Your task to perform on an android device: open app "Venmo" (install if not already installed), go to login, and select forgot password Image 0: 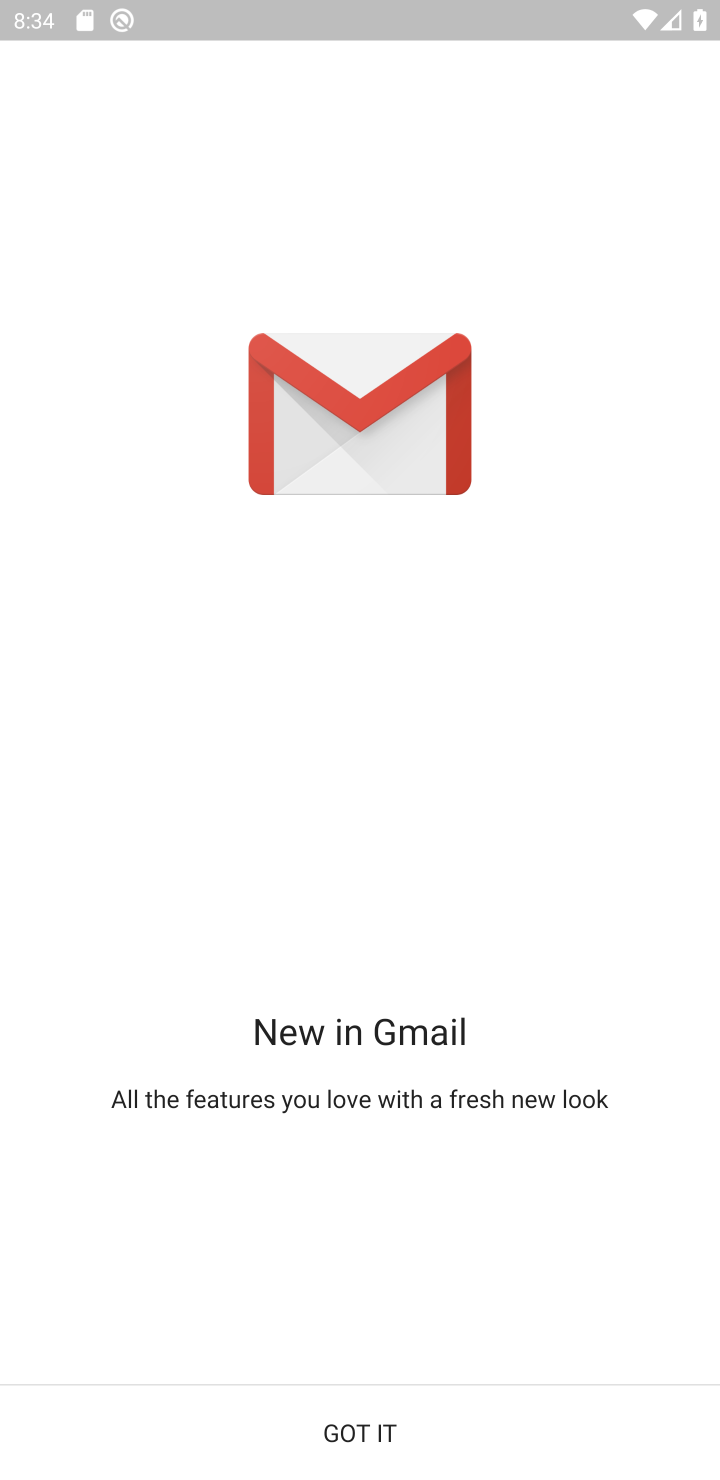
Step 0: press home button
Your task to perform on an android device: open app "Venmo" (install if not already installed), go to login, and select forgot password Image 1: 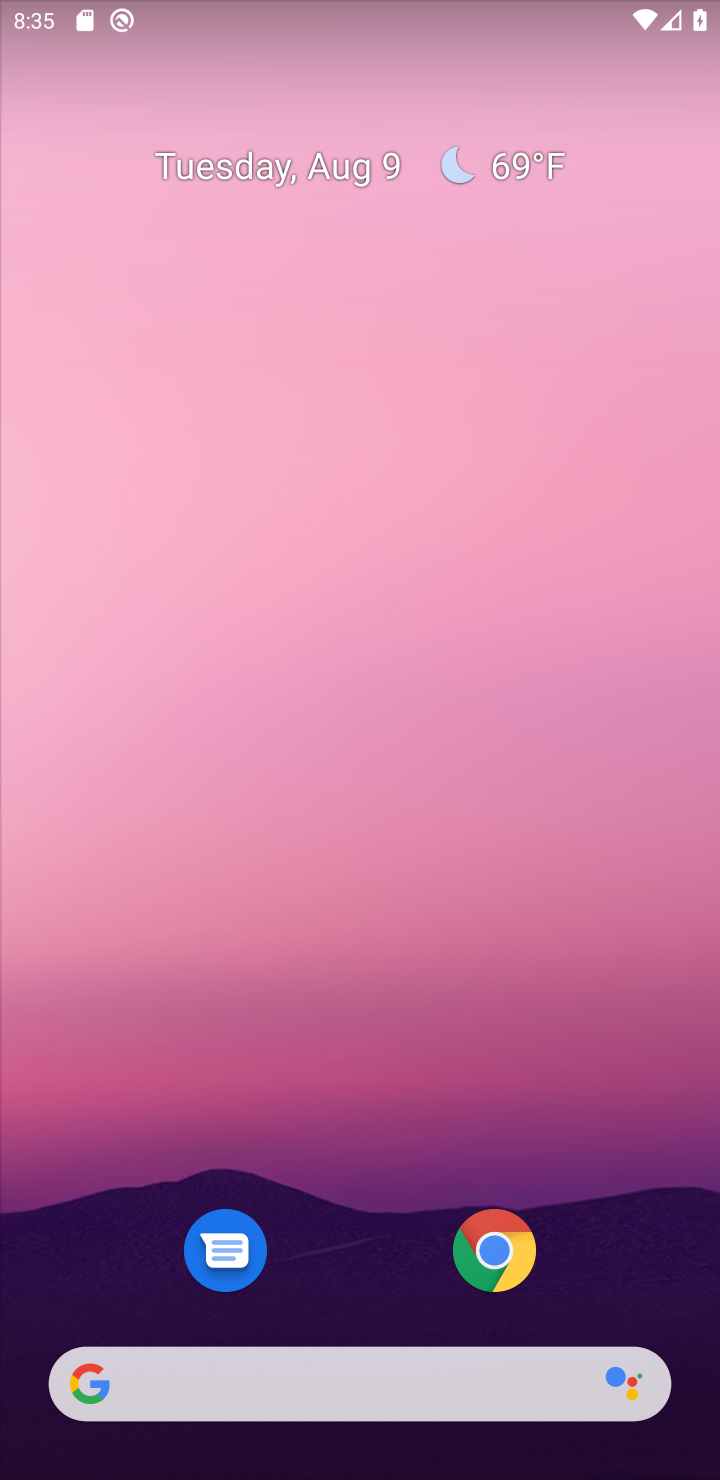
Step 1: click (490, 1260)
Your task to perform on an android device: open app "Venmo" (install if not already installed), go to login, and select forgot password Image 2: 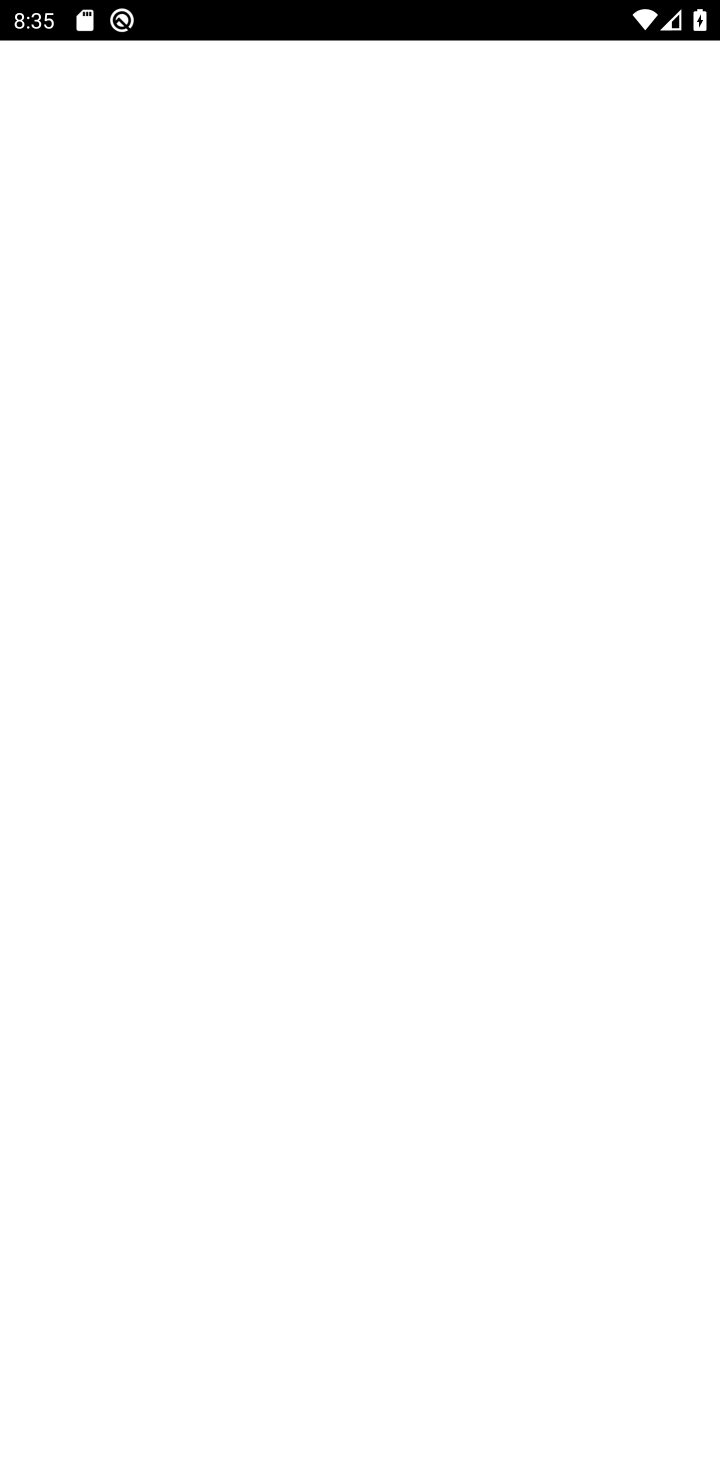
Step 2: click (490, 1240)
Your task to perform on an android device: open app "Venmo" (install if not already installed), go to login, and select forgot password Image 3: 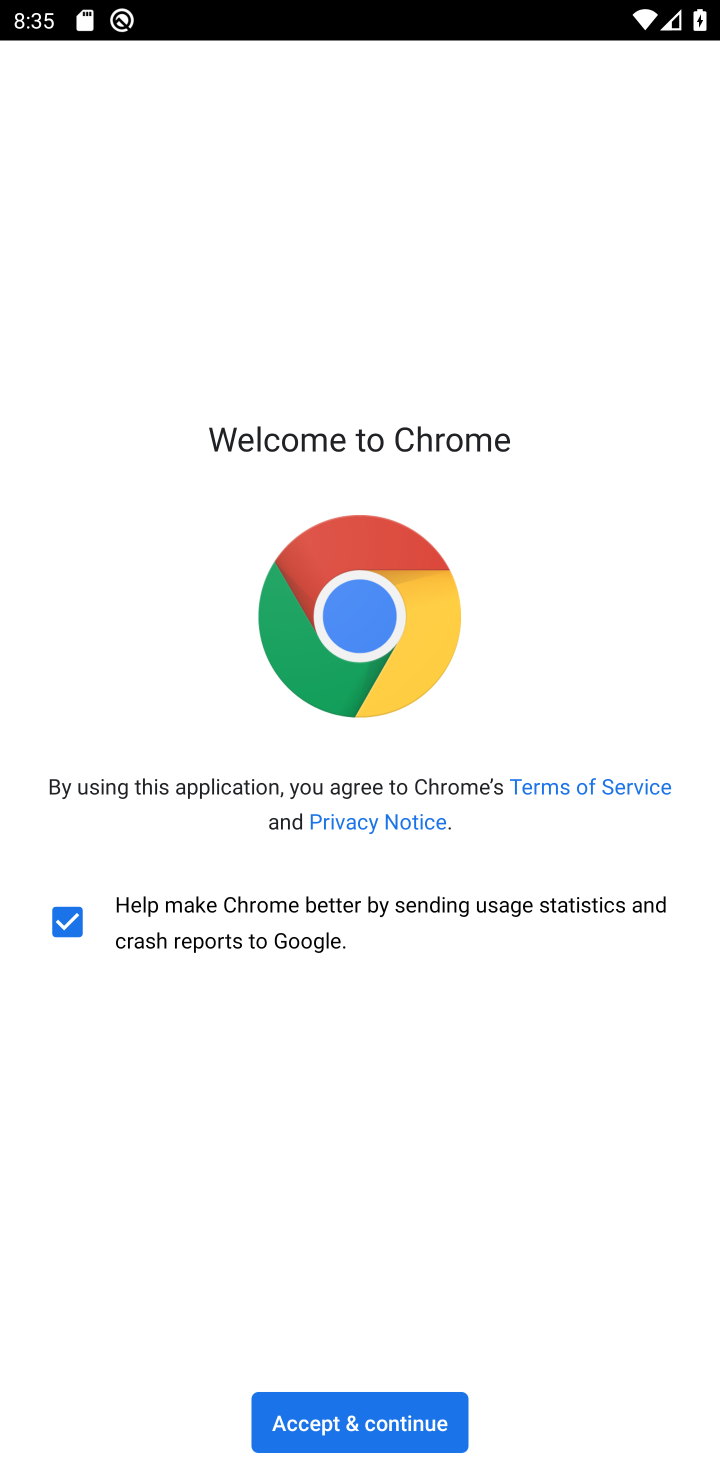
Step 3: press home button
Your task to perform on an android device: open app "Venmo" (install if not already installed), go to login, and select forgot password Image 4: 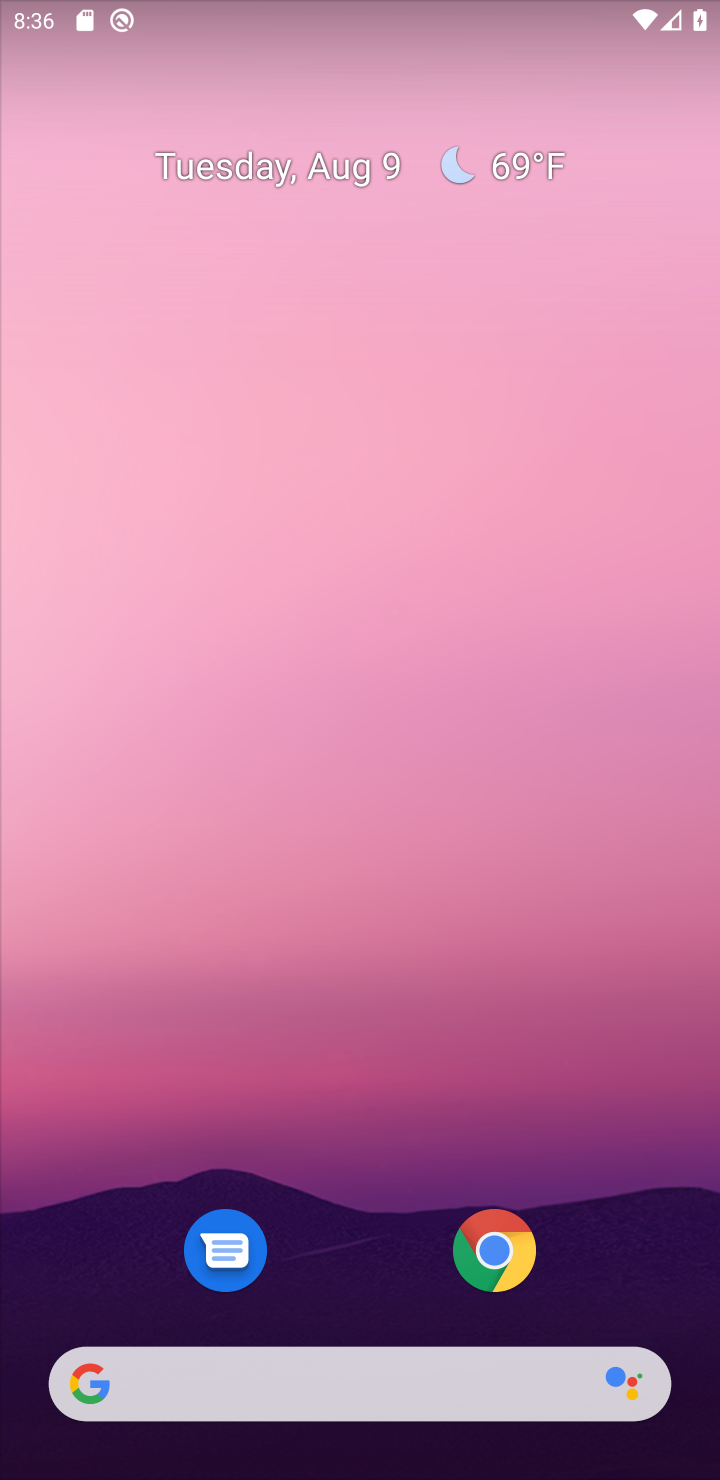
Step 4: drag from (688, 1334) to (615, 157)
Your task to perform on an android device: open app "Venmo" (install if not already installed), go to login, and select forgot password Image 5: 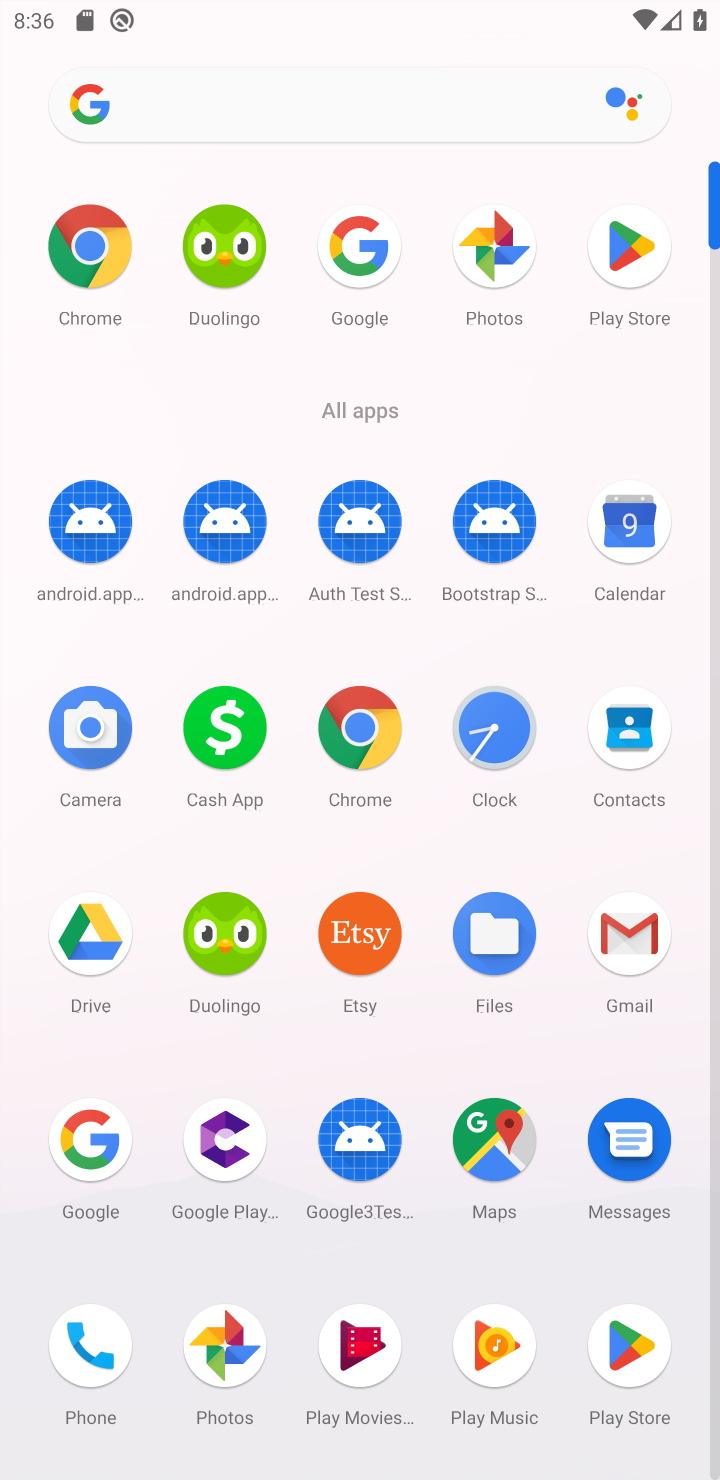
Step 5: click (605, 1334)
Your task to perform on an android device: open app "Venmo" (install if not already installed), go to login, and select forgot password Image 6: 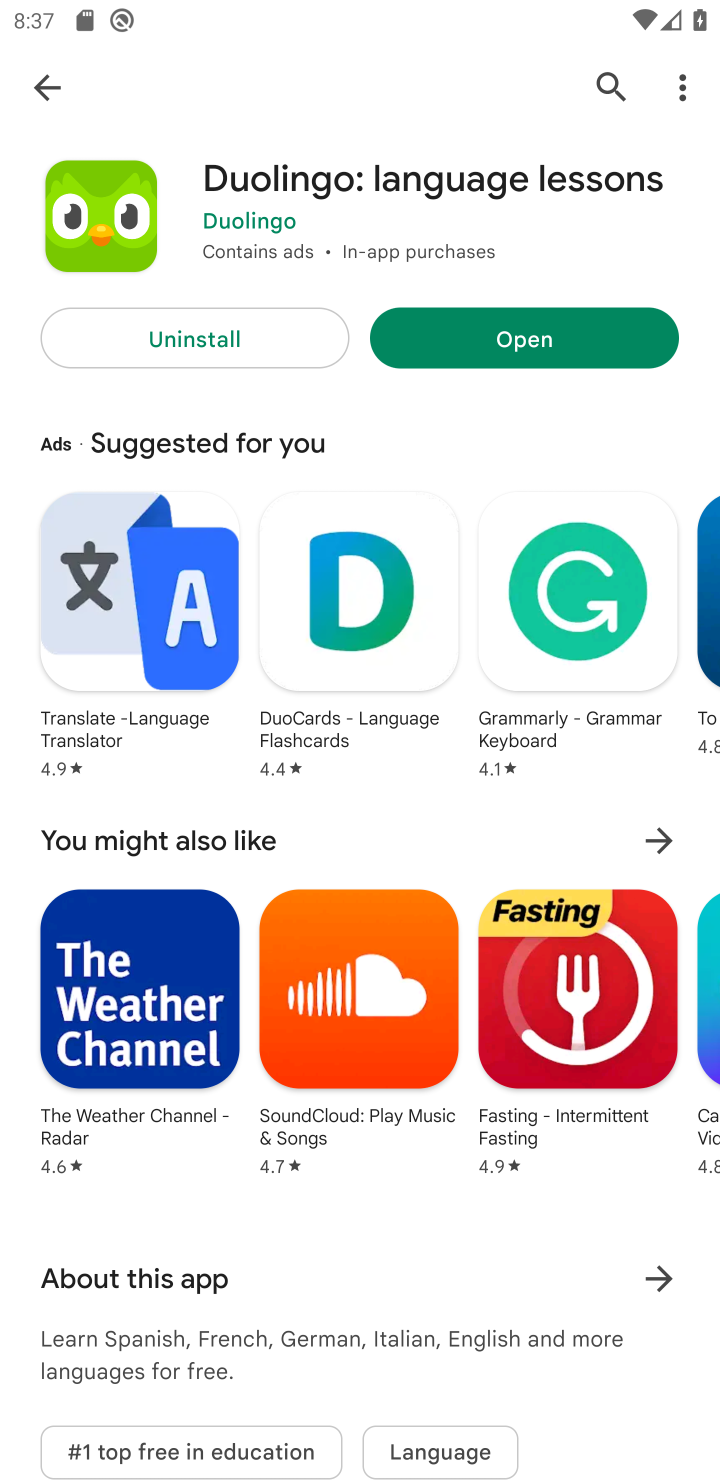
Step 6: click (611, 75)
Your task to perform on an android device: open app "Venmo" (install if not already installed), go to login, and select forgot password Image 7: 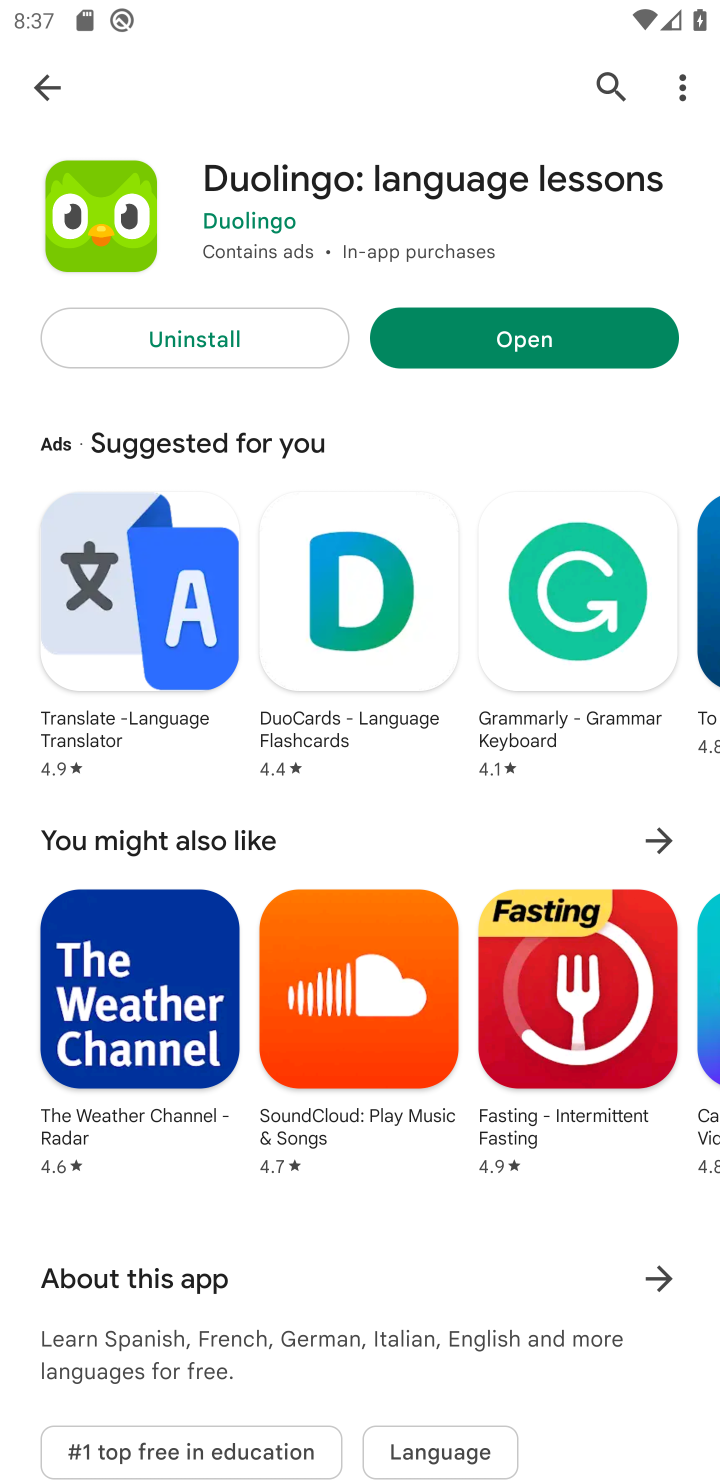
Step 7: click (598, 72)
Your task to perform on an android device: open app "Venmo" (install if not already installed), go to login, and select forgot password Image 8: 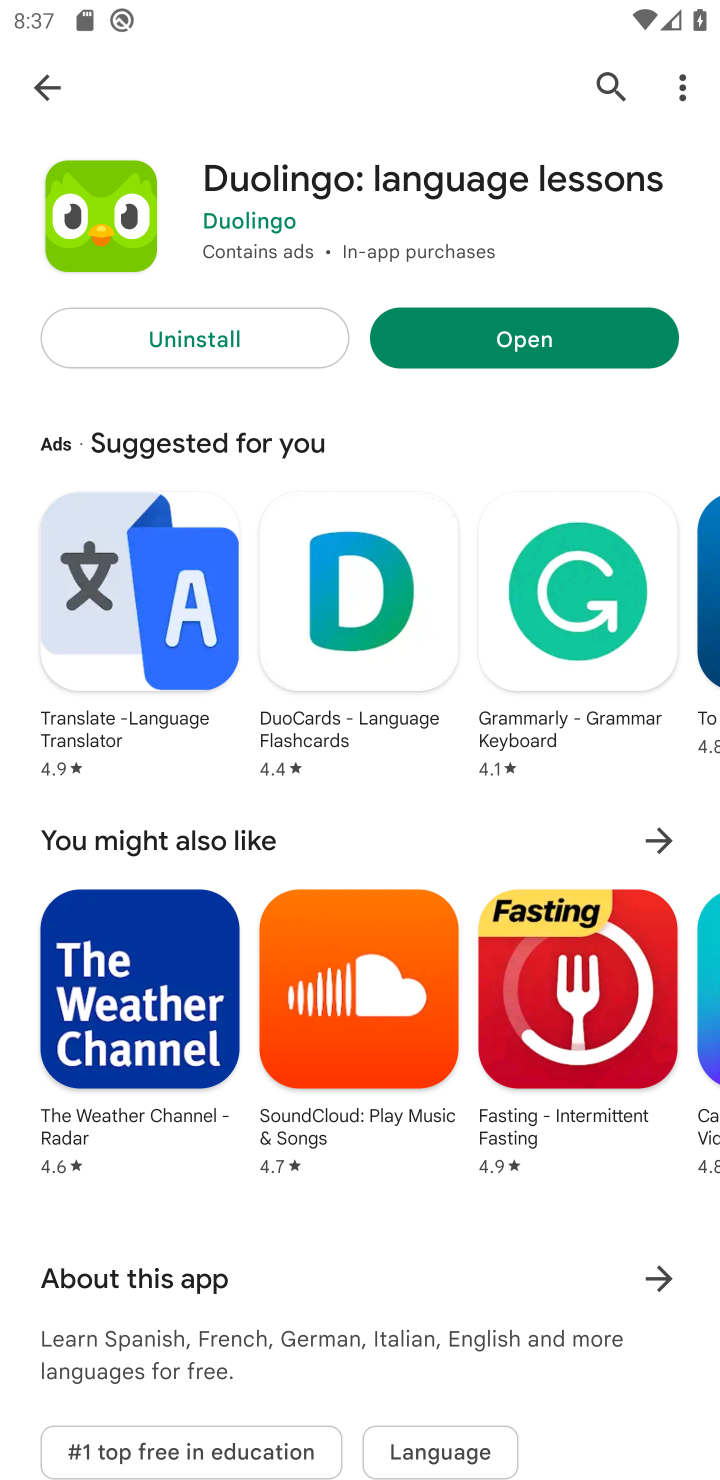
Step 8: click (609, 77)
Your task to perform on an android device: open app "Venmo" (install if not already installed), go to login, and select forgot password Image 9: 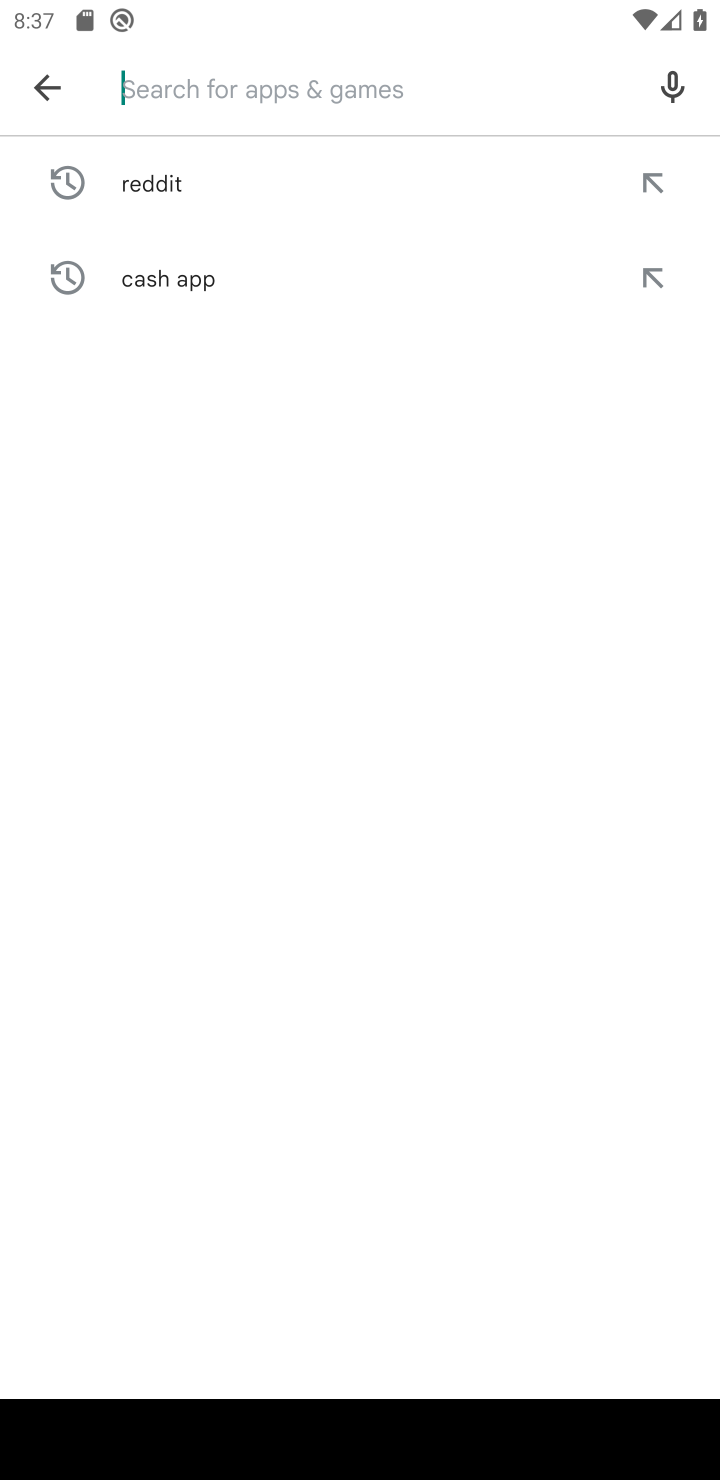
Step 9: type "Venmo"
Your task to perform on an android device: open app "Venmo" (install if not already installed), go to login, and select forgot password Image 10: 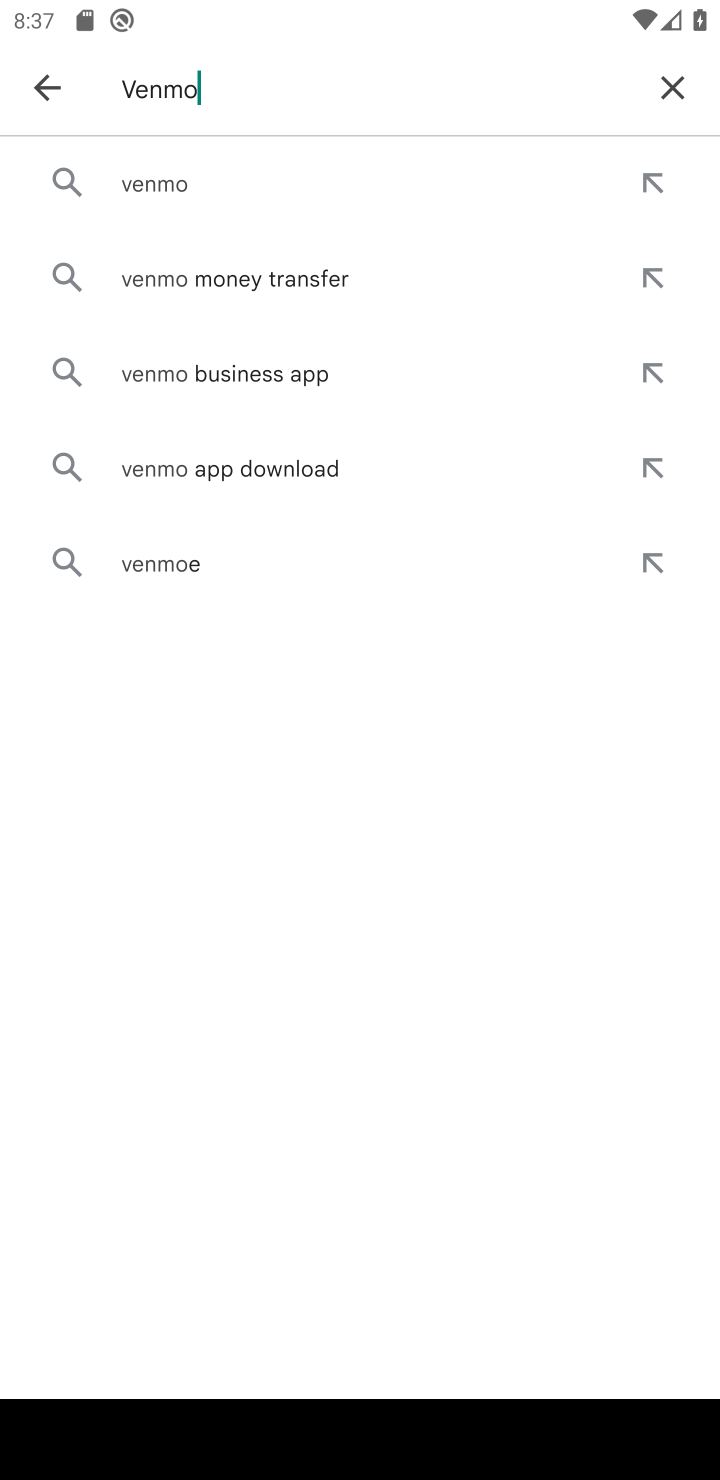
Step 10: click (168, 182)
Your task to perform on an android device: open app "Venmo" (install if not already installed), go to login, and select forgot password Image 11: 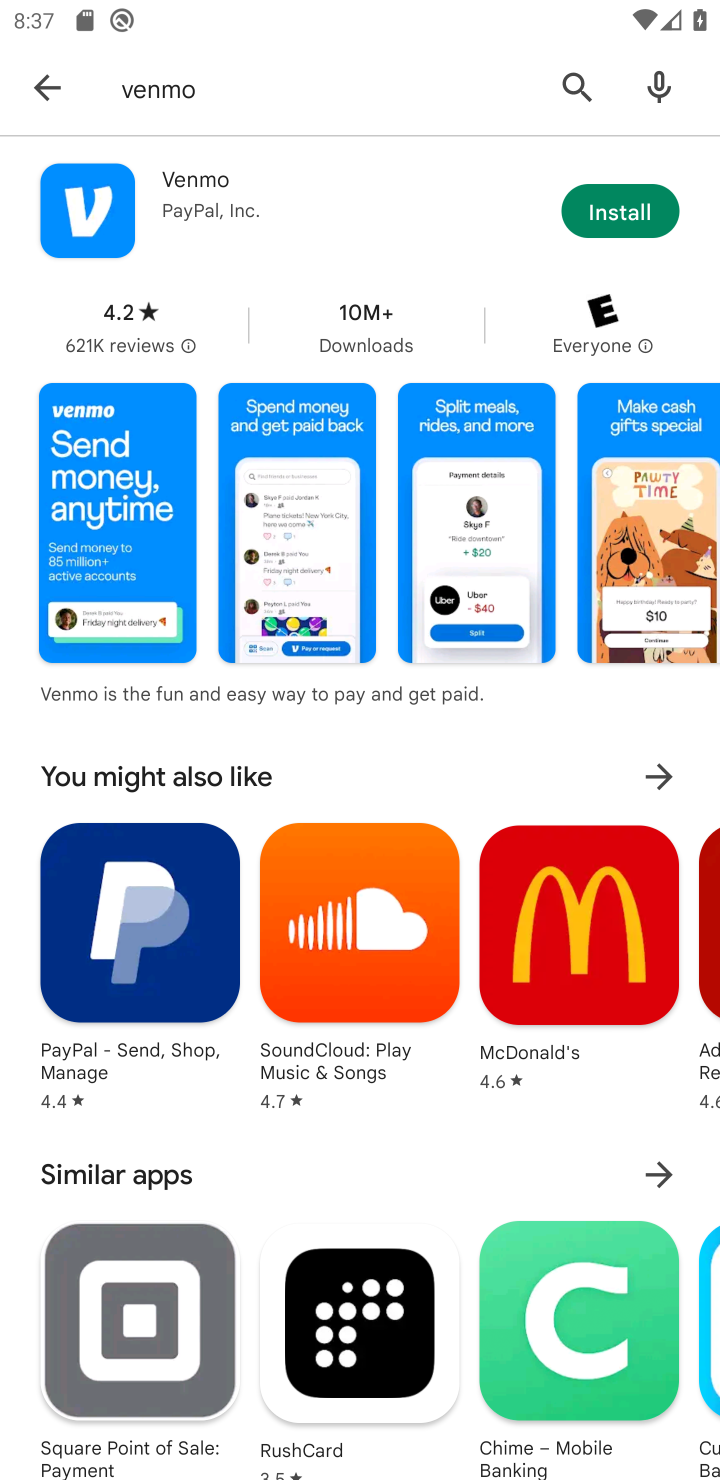
Step 11: click (618, 207)
Your task to perform on an android device: open app "Venmo" (install if not already installed), go to login, and select forgot password Image 12: 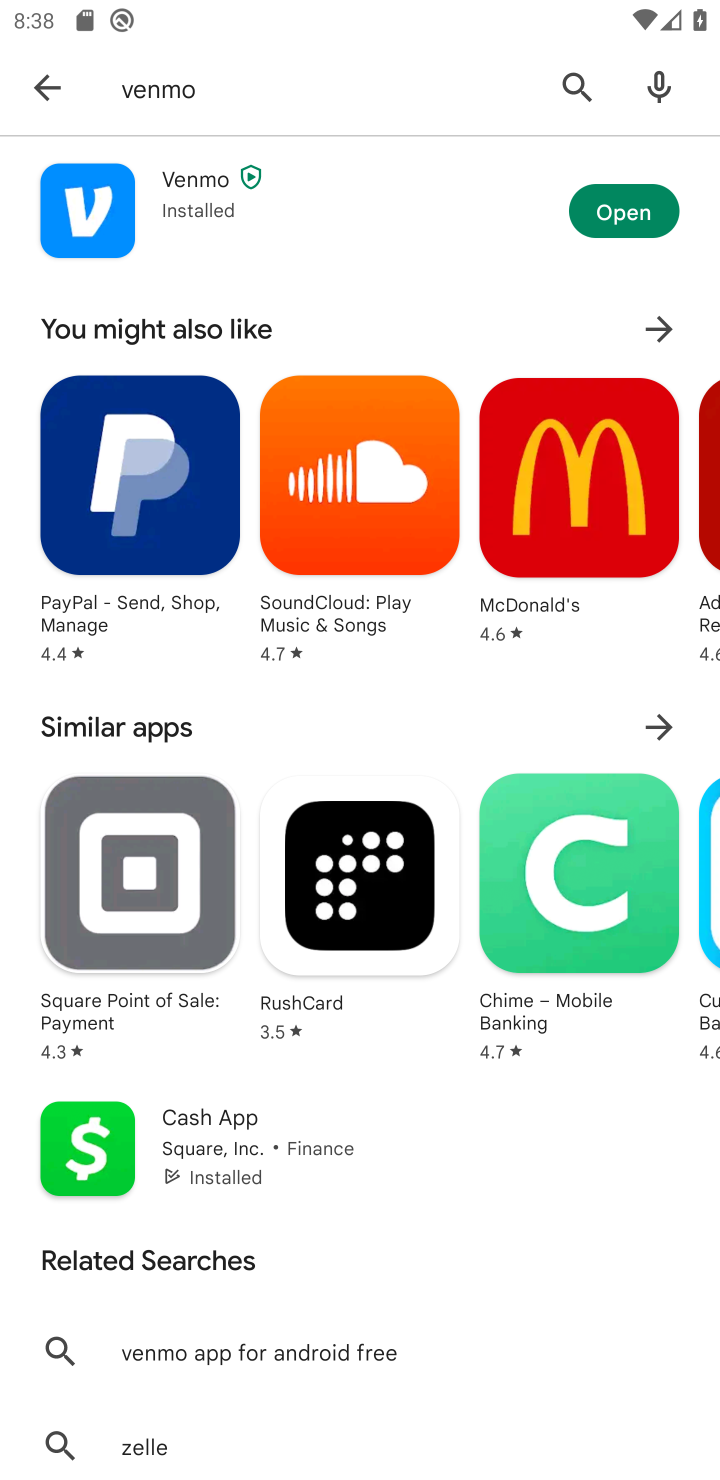
Step 12: click (625, 208)
Your task to perform on an android device: open app "Venmo" (install if not already installed), go to login, and select forgot password Image 13: 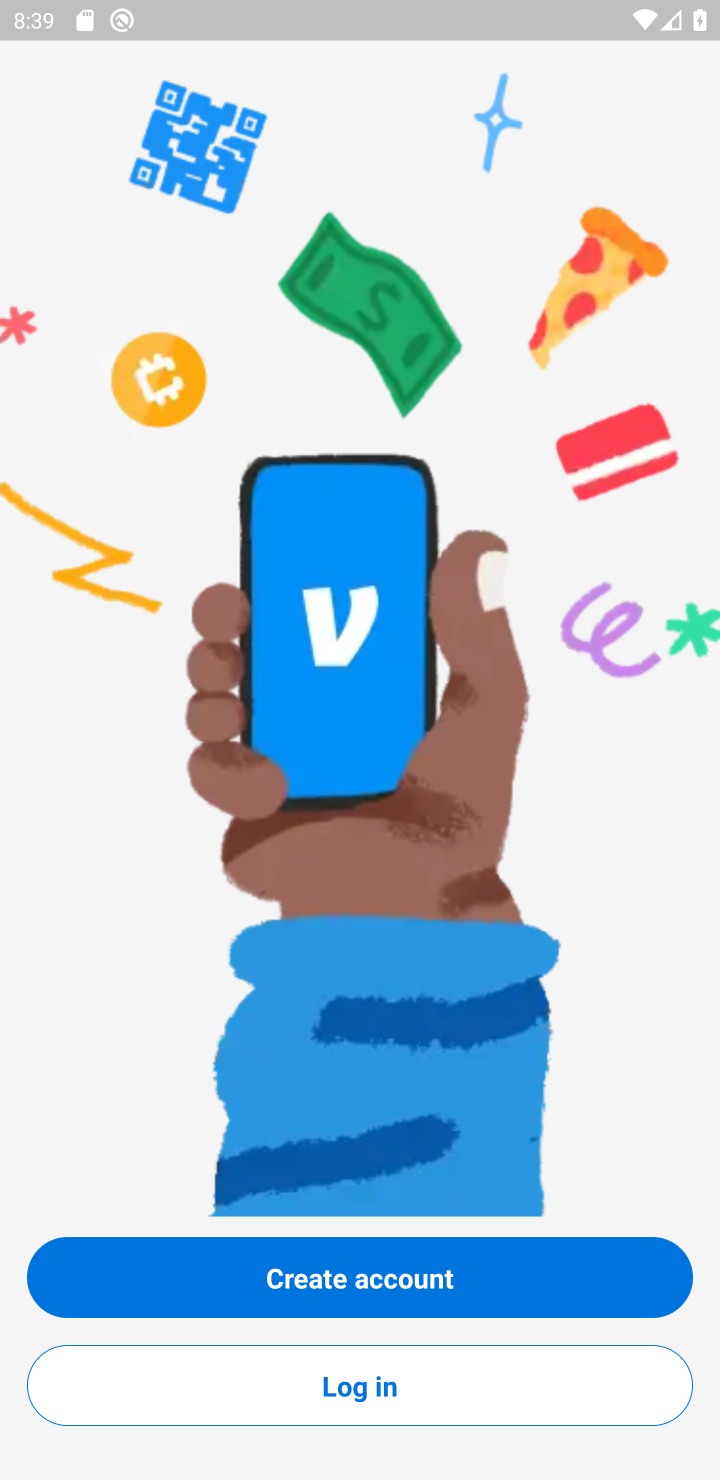
Step 13: click (340, 1388)
Your task to perform on an android device: open app "Venmo" (install if not already installed), go to login, and select forgot password Image 14: 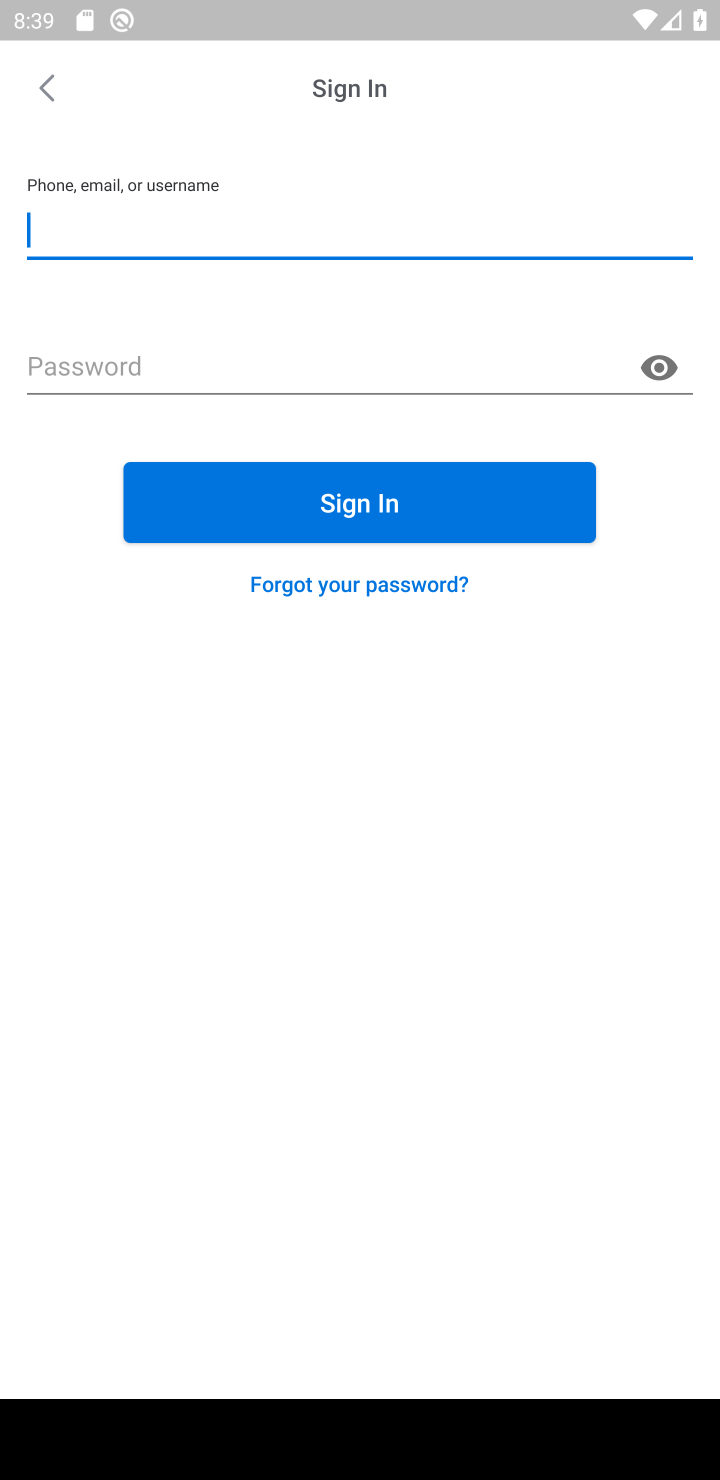
Step 14: click (385, 579)
Your task to perform on an android device: open app "Venmo" (install if not already installed), go to login, and select forgot password Image 15: 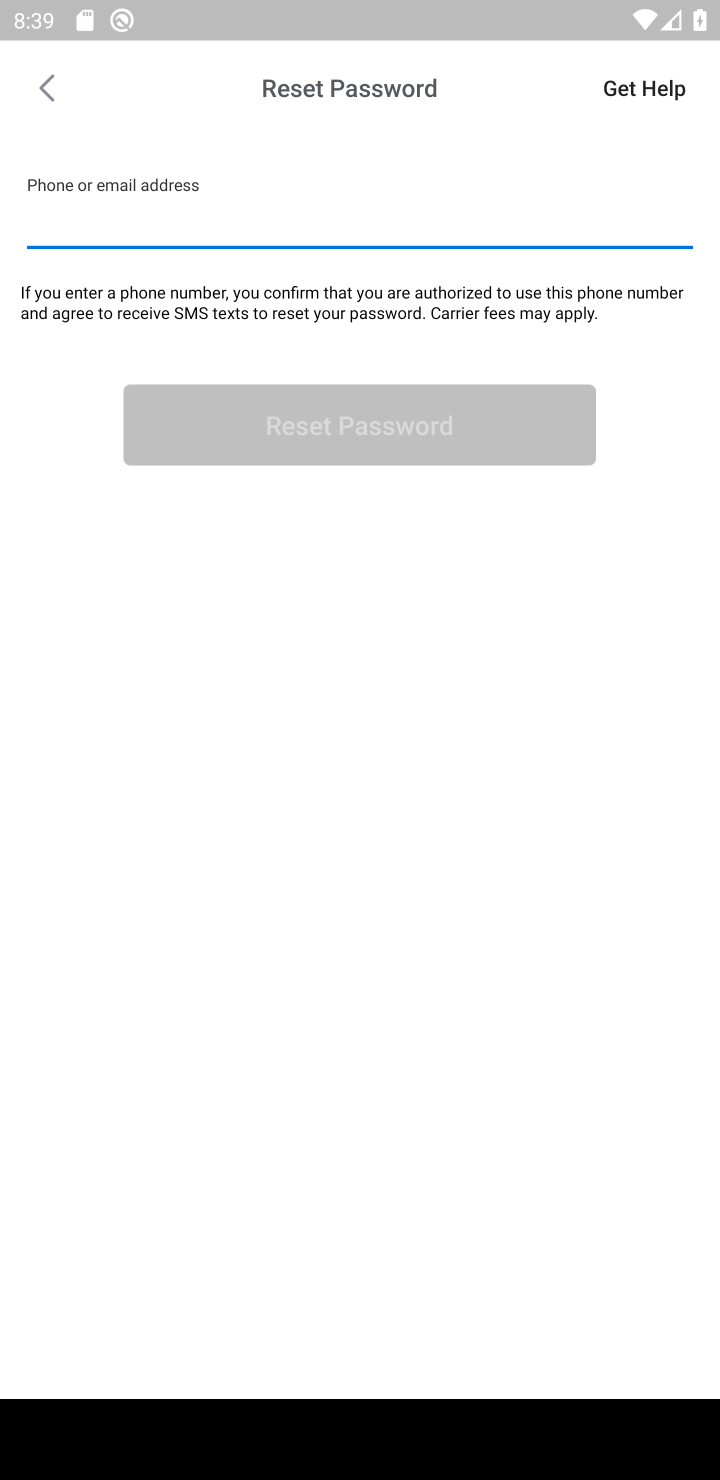
Step 15: task complete